Your task to perform on an android device: clear all cookies in the chrome app Image 0: 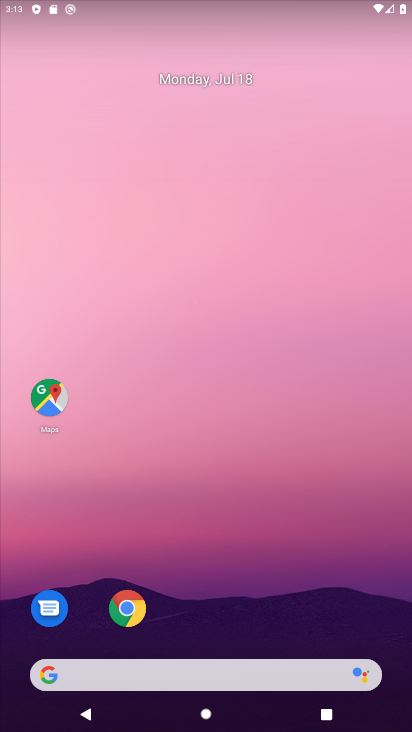
Step 0: drag from (270, 582) to (312, 97)
Your task to perform on an android device: clear all cookies in the chrome app Image 1: 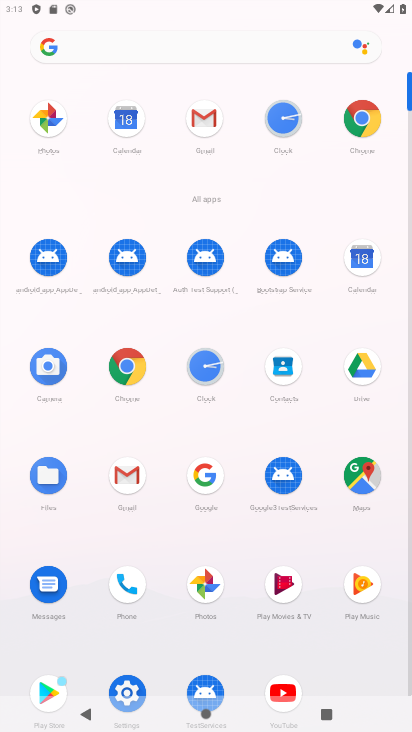
Step 1: click (123, 362)
Your task to perform on an android device: clear all cookies in the chrome app Image 2: 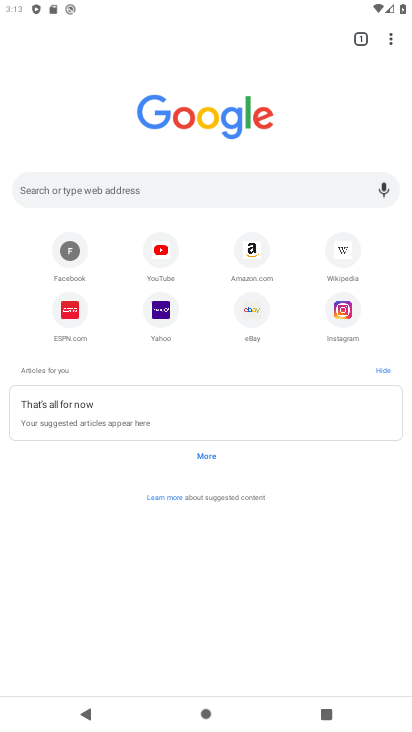
Step 2: task complete